Your task to perform on an android device: Open display settings Image 0: 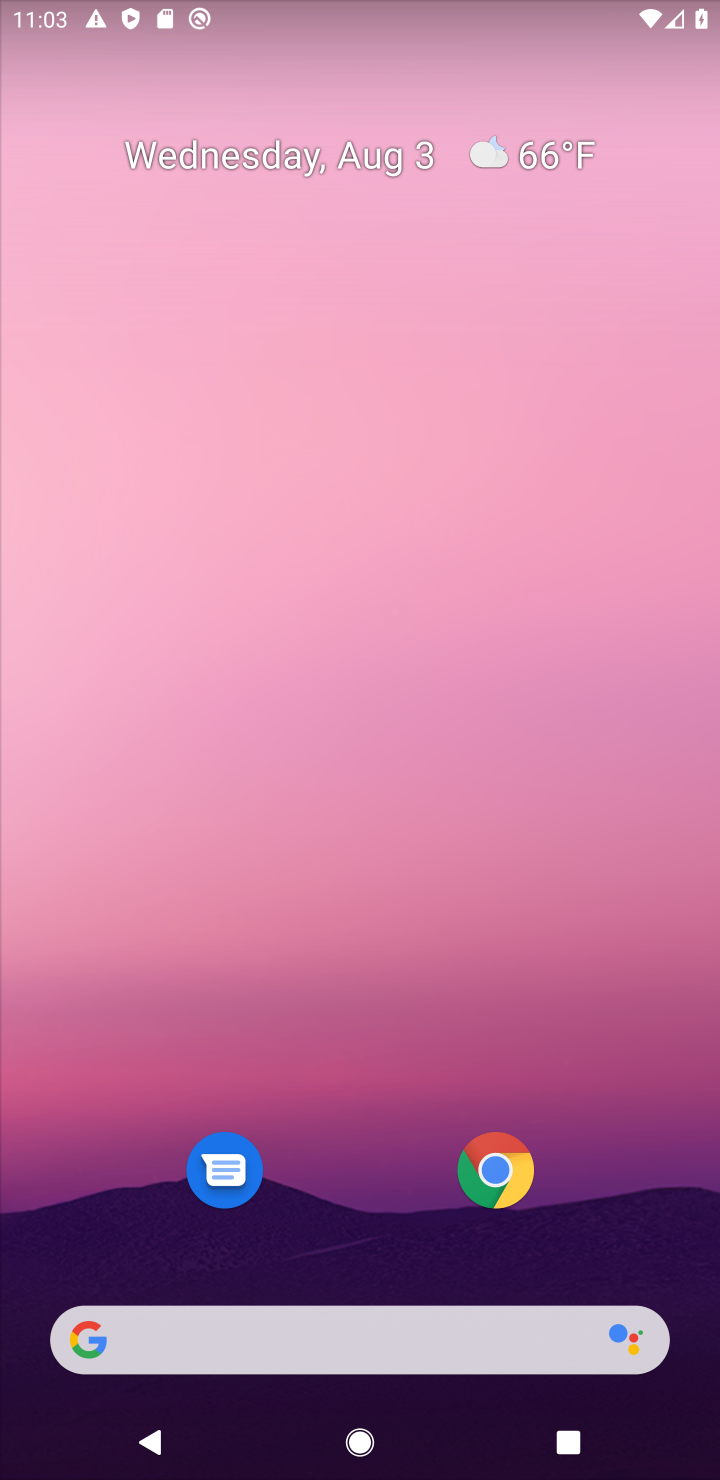
Step 0: drag from (382, 1247) to (462, 306)
Your task to perform on an android device: Open display settings Image 1: 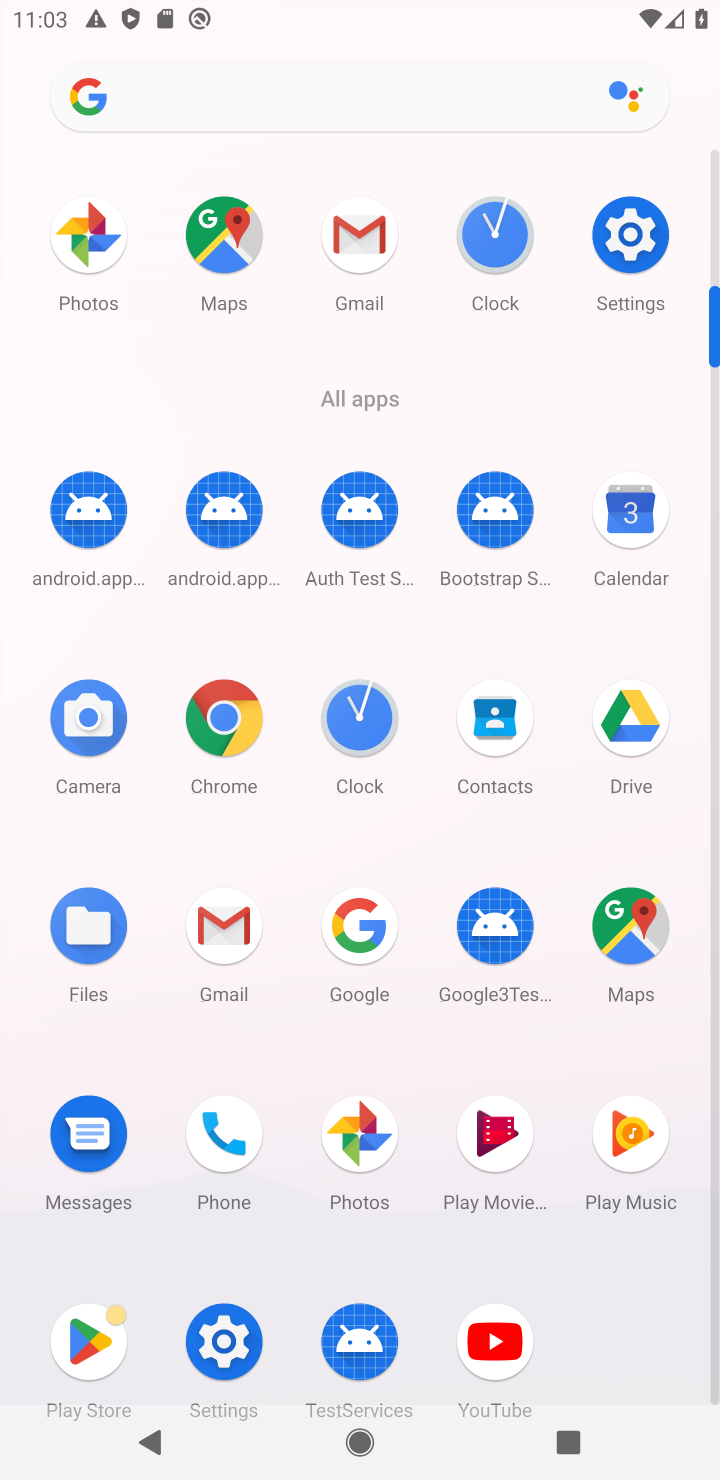
Step 1: drag from (336, 1170) to (443, 579)
Your task to perform on an android device: Open display settings Image 2: 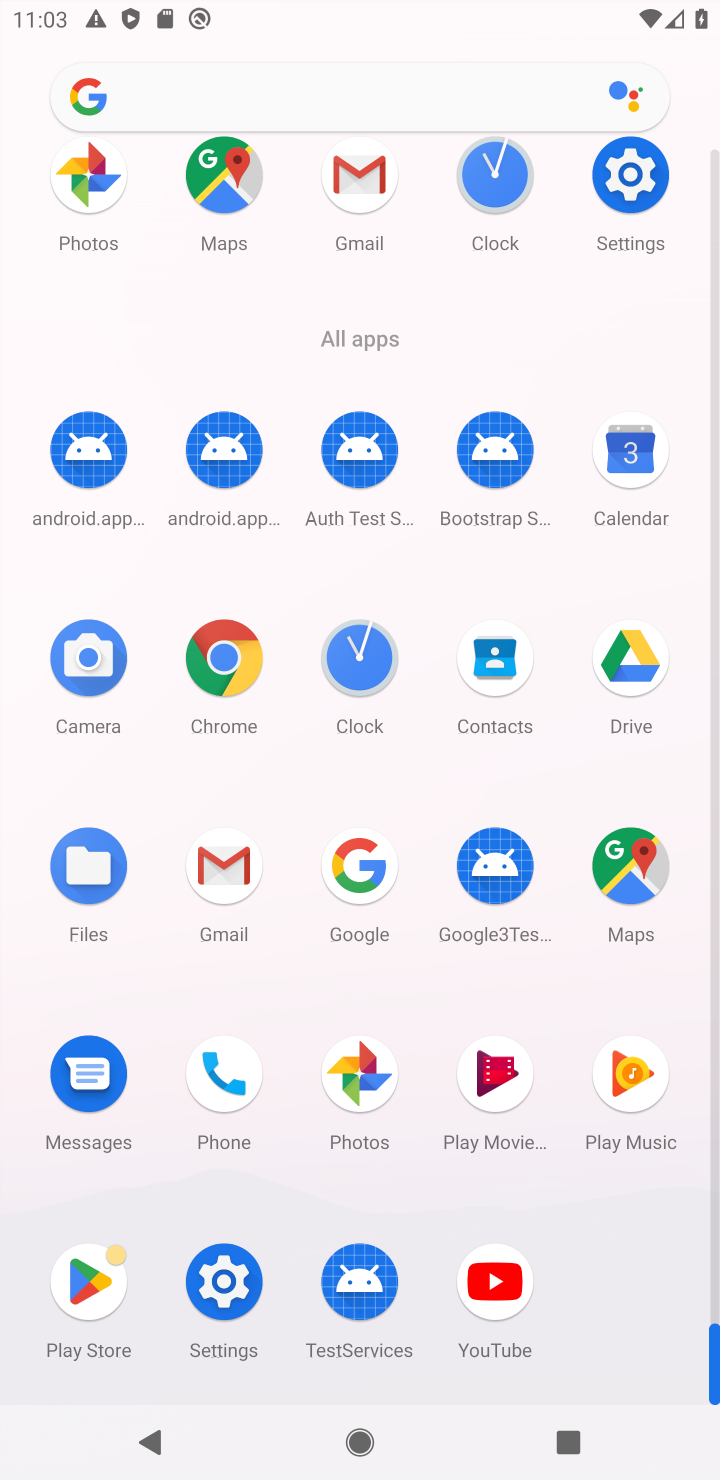
Step 2: click (214, 1296)
Your task to perform on an android device: Open display settings Image 3: 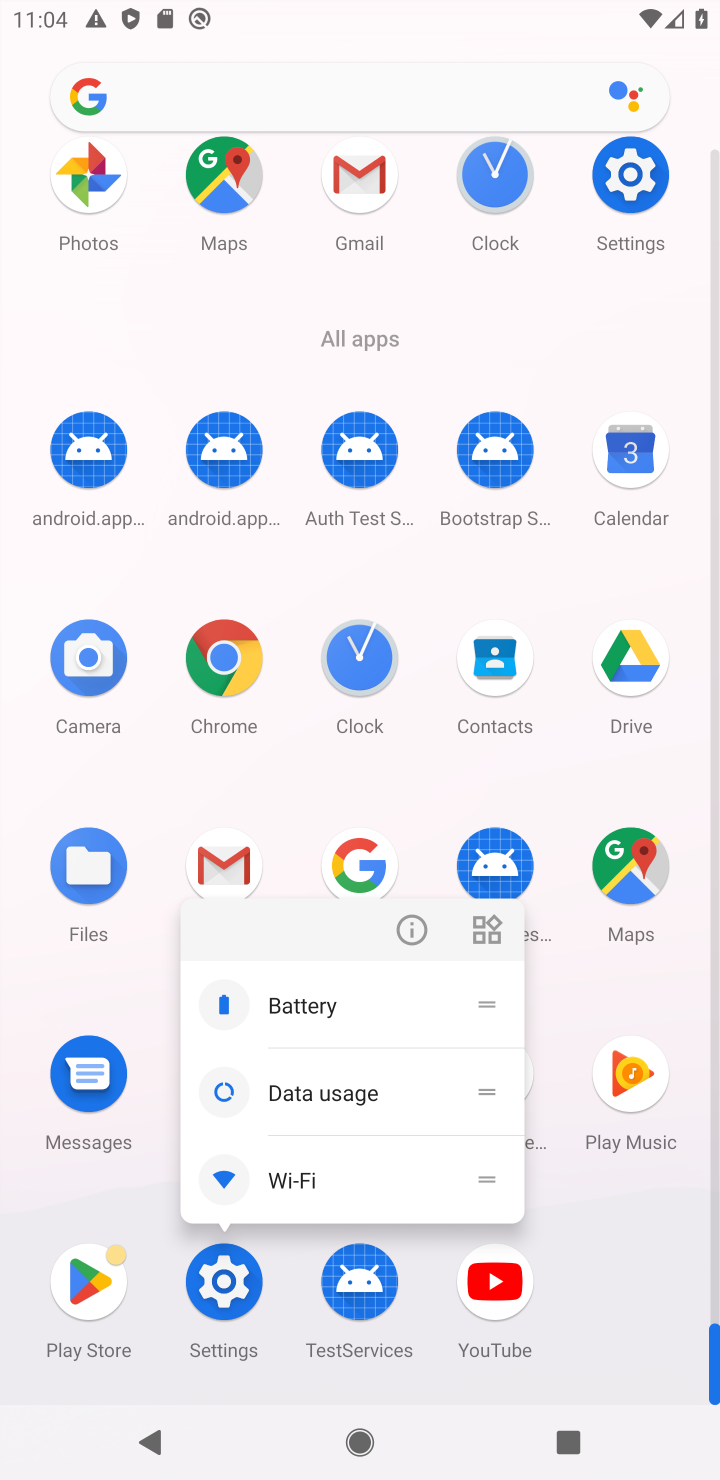
Step 3: click (405, 927)
Your task to perform on an android device: Open display settings Image 4: 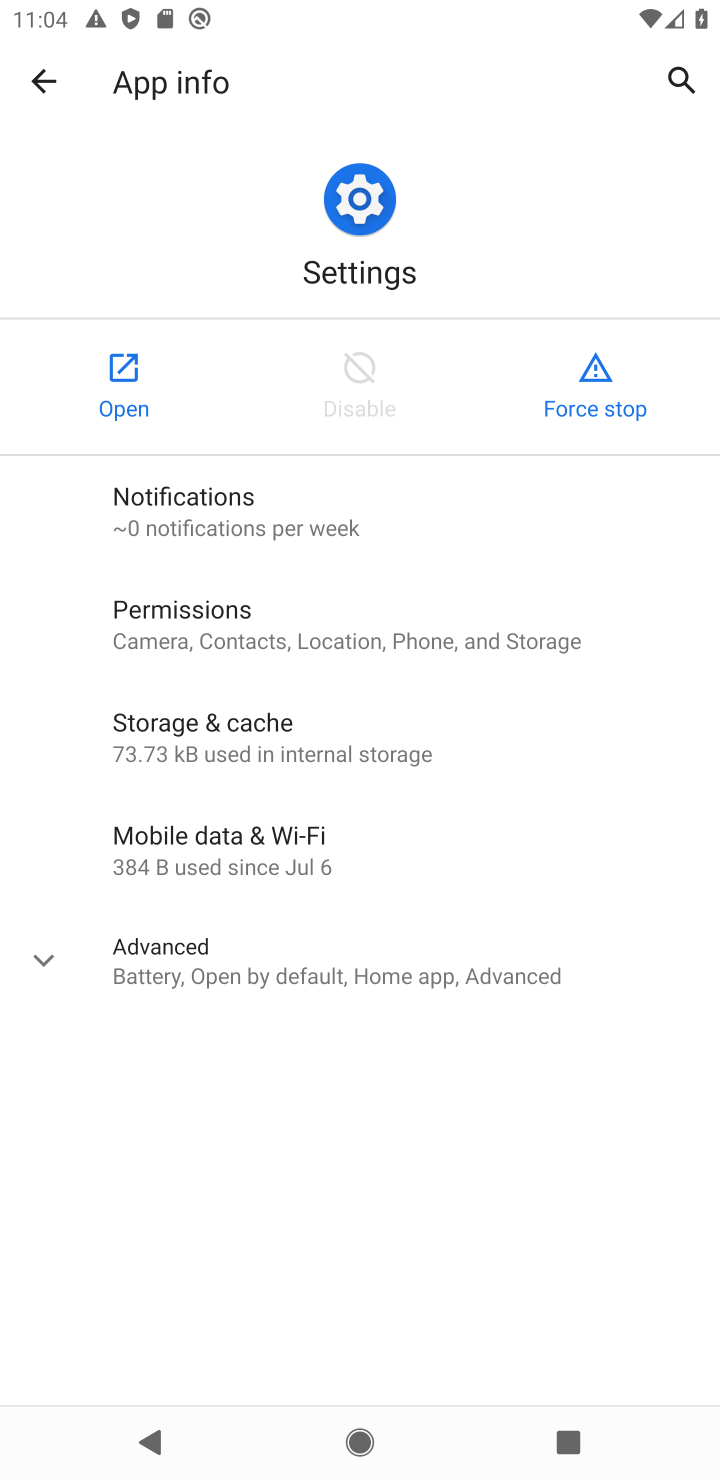
Step 4: click (129, 398)
Your task to perform on an android device: Open display settings Image 5: 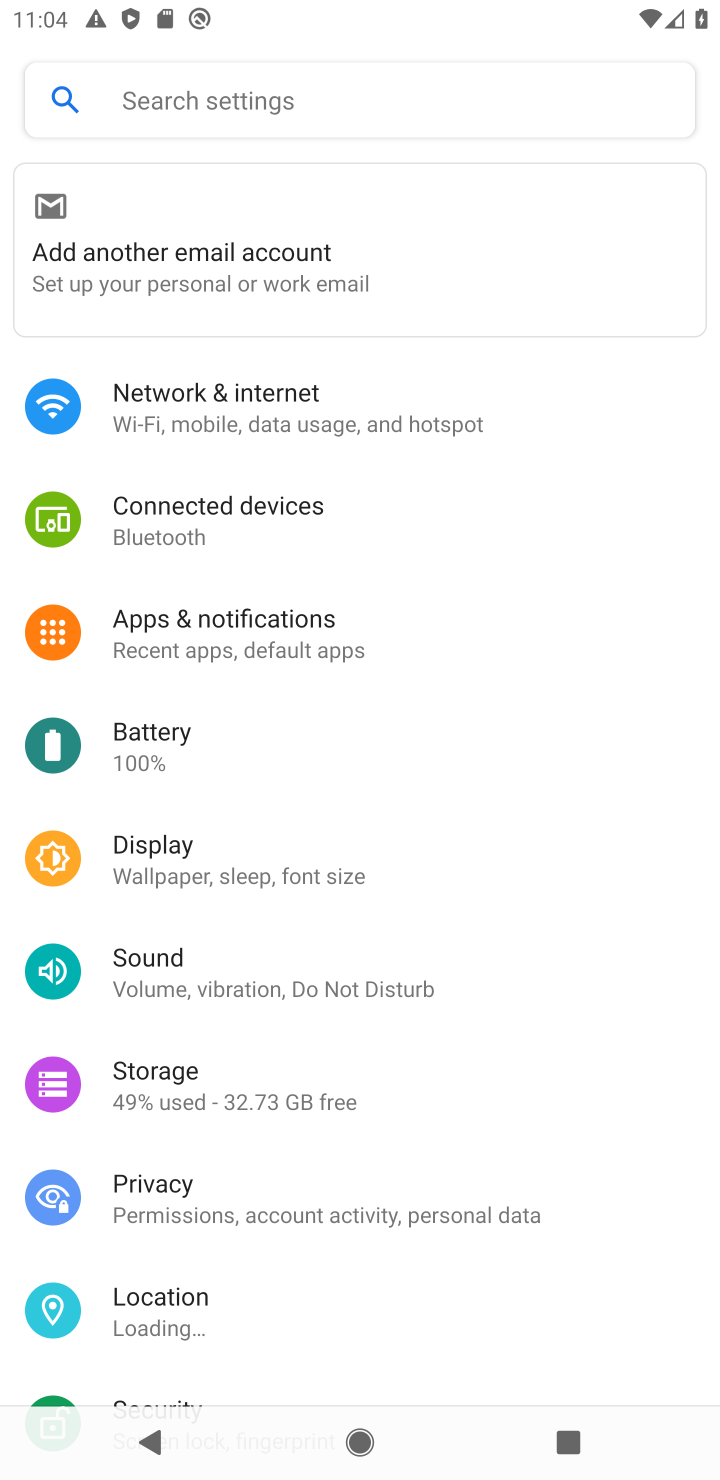
Step 5: click (202, 851)
Your task to perform on an android device: Open display settings Image 6: 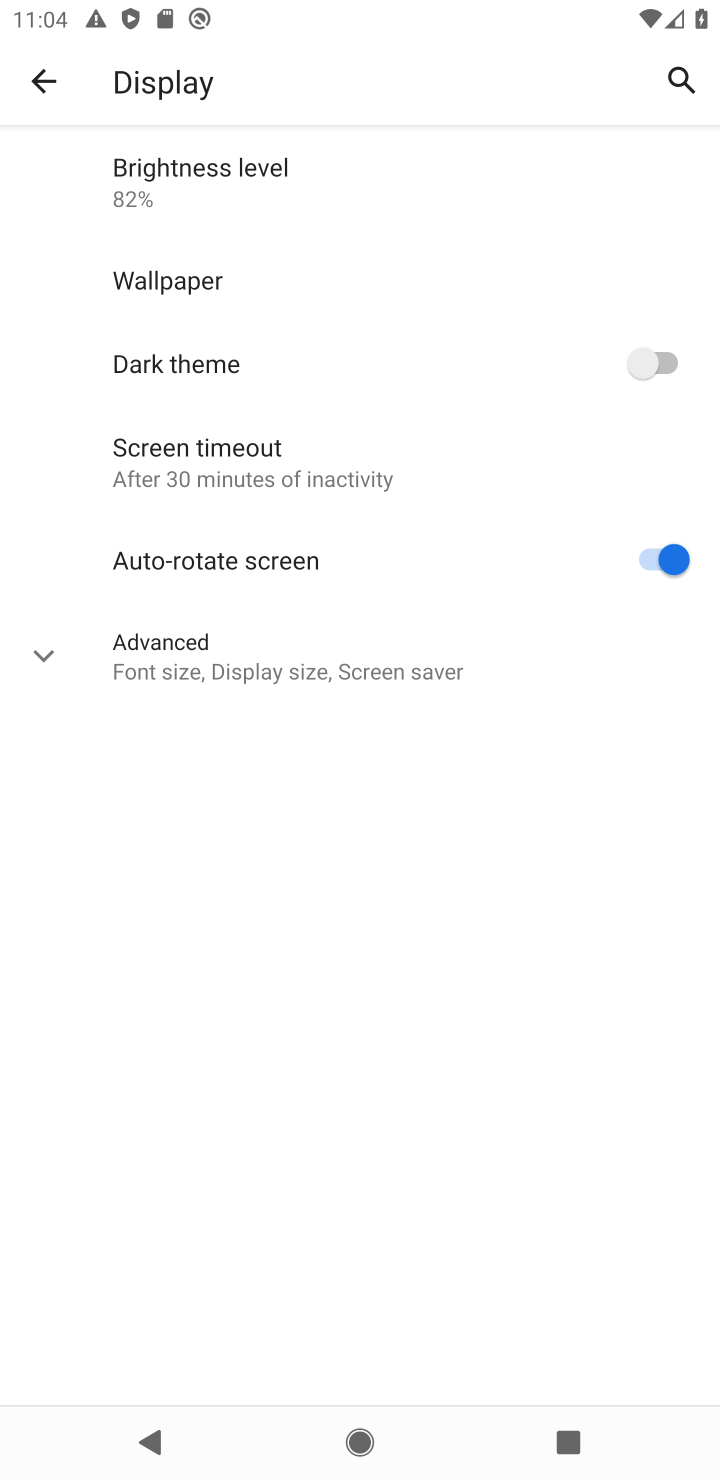
Step 6: drag from (390, 1127) to (388, 477)
Your task to perform on an android device: Open display settings Image 7: 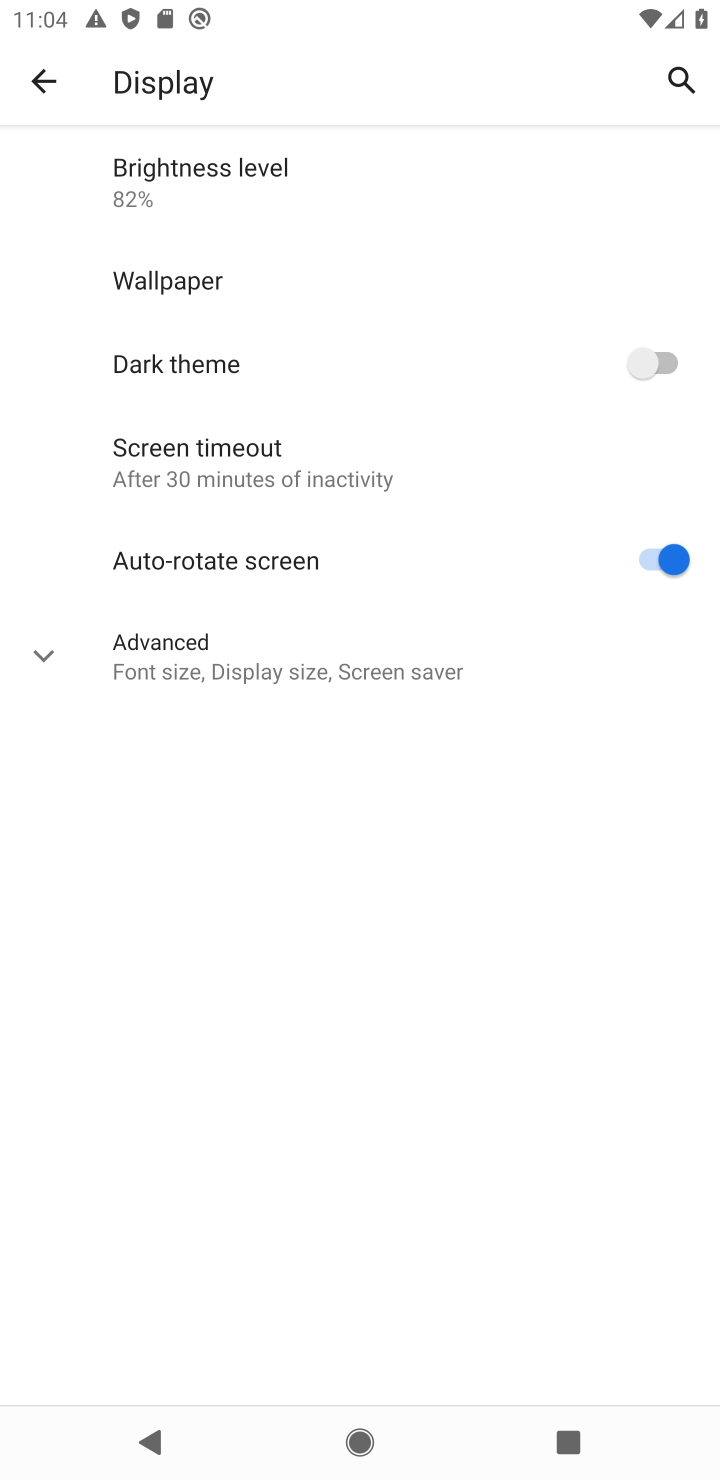
Step 7: click (256, 654)
Your task to perform on an android device: Open display settings Image 8: 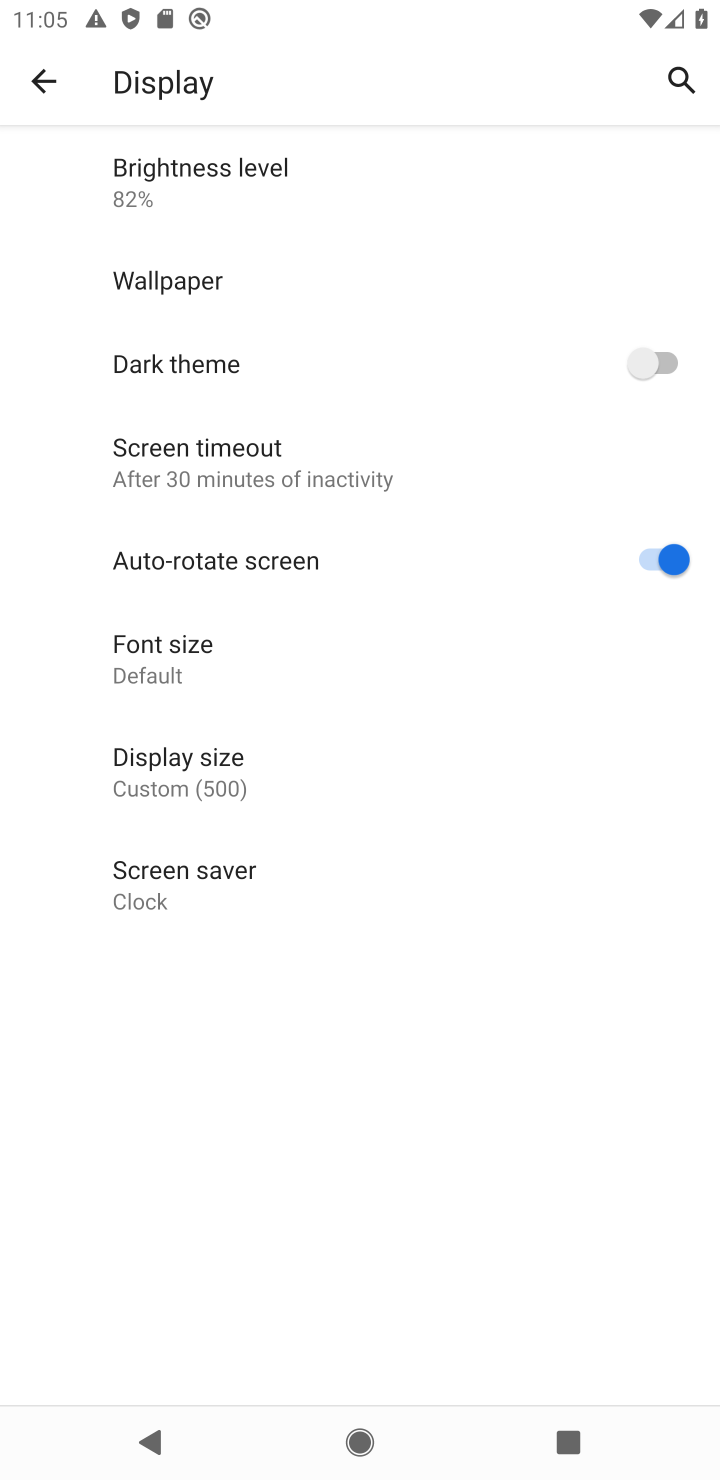
Step 8: task complete